Your task to perform on an android device: Find coffee shops on Maps Image 0: 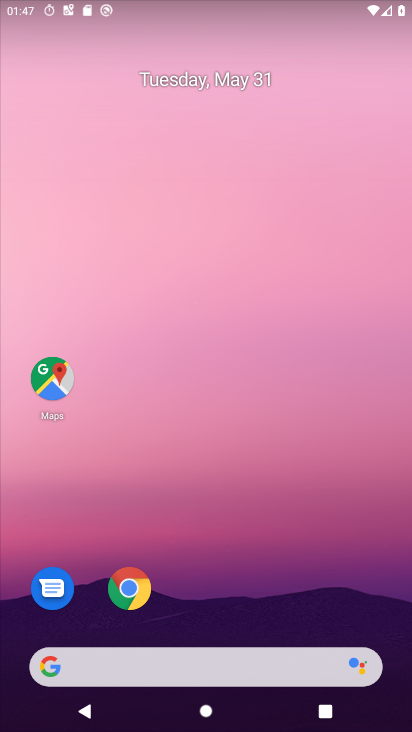
Step 0: drag from (301, 638) to (345, 54)
Your task to perform on an android device: Find coffee shops on Maps Image 1: 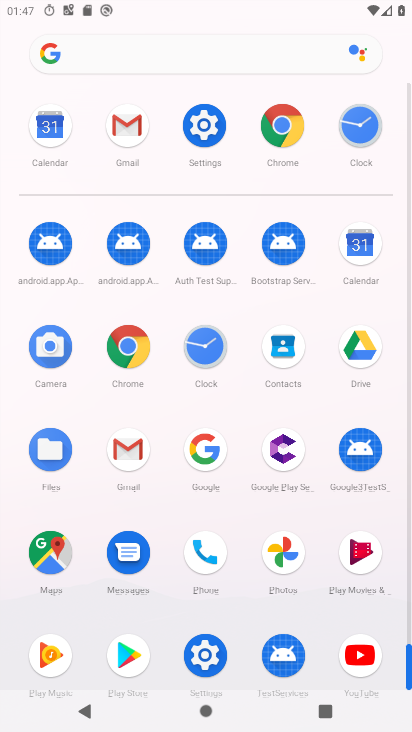
Step 1: click (55, 556)
Your task to perform on an android device: Find coffee shops on Maps Image 2: 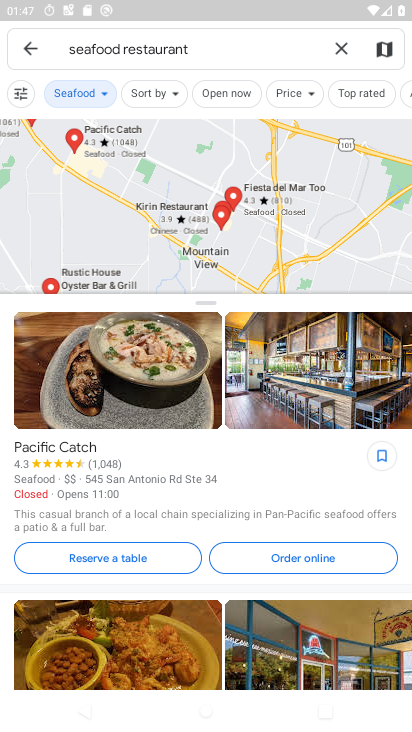
Step 2: press back button
Your task to perform on an android device: Find coffee shops on Maps Image 3: 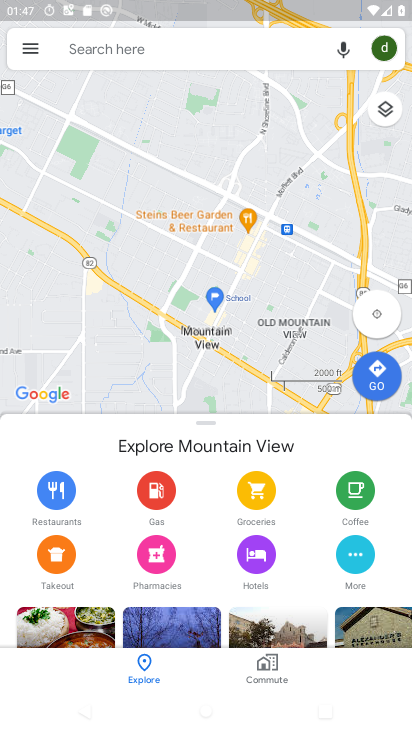
Step 3: click (251, 57)
Your task to perform on an android device: Find coffee shops on Maps Image 4: 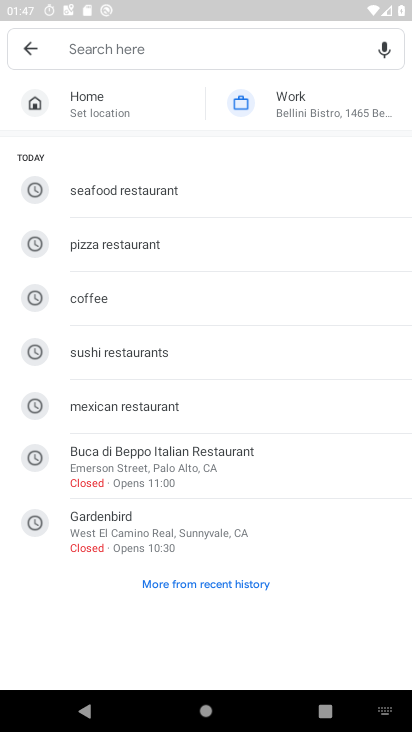
Step 4: type "coffee shops"
Your task to perform on an android device: Find coffee shops on Maps Image 5: 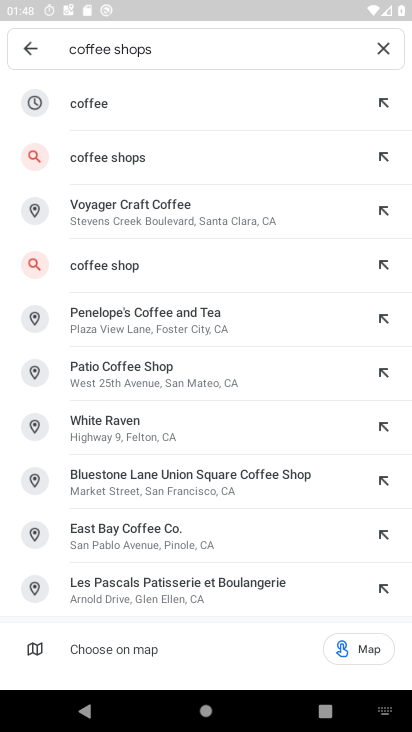
Step 5: click (185, 164)
Your task to perform on an android device: Find coffee shops on Maps Image 6: 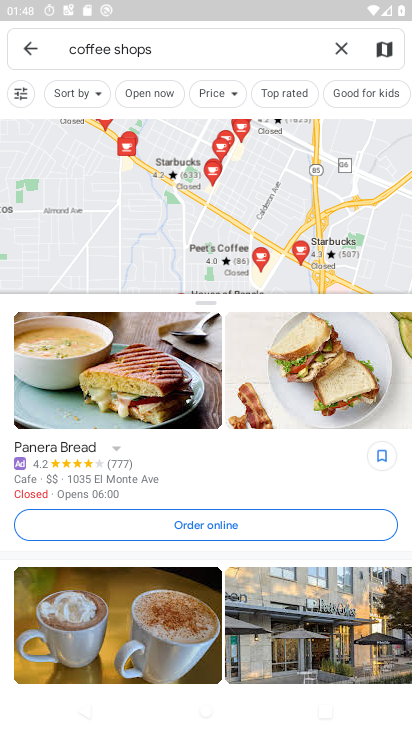
Step 6: task complete